Your task to perform on an android device: Open Google Chrome and open the bookmarks view Image 0: 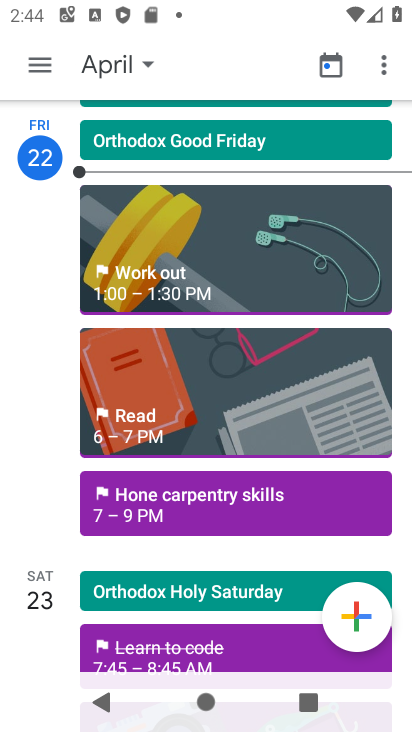
Step 0: press home button
Your task to perform on an android device: Open Google Chrome and open the bookmarks view Image 1: 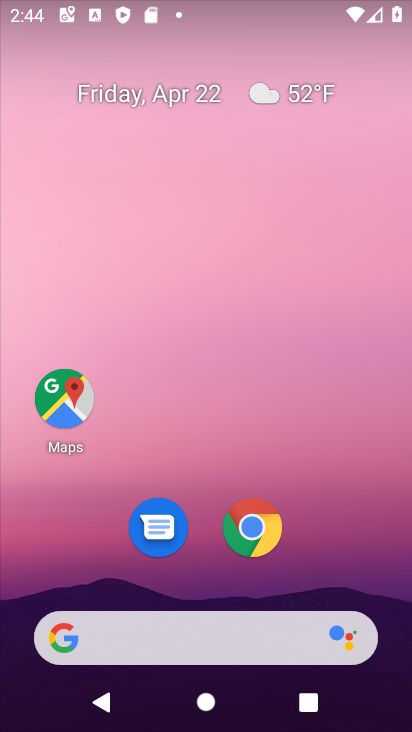
Step 1: drag from (350, 528) to (252, 116)
Your task to perform on an android device: Open Google Chrome and open the bookmarks view Image 2: 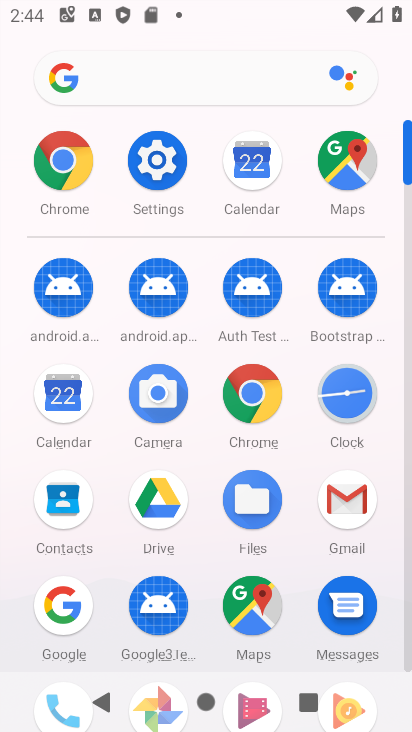
Step 2: click (73, 185)
Your task to perform on an android device: Open Google Chrome and open the bookmarks view Image 3: 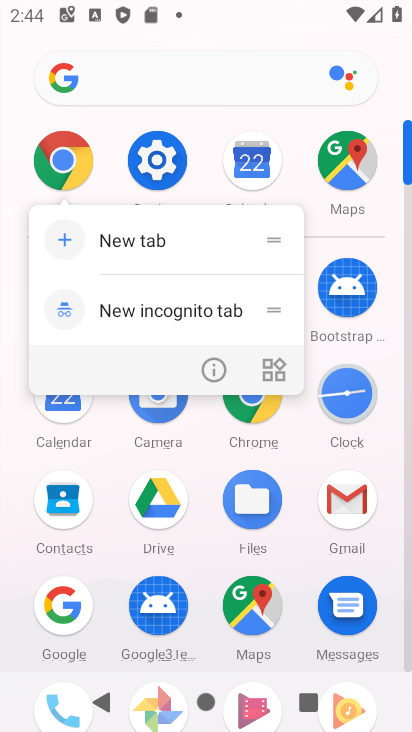
Step 3: click (73, 183)
Your task to perform on an android device: Open Google Chrome and open the bookmarks view Image 4: 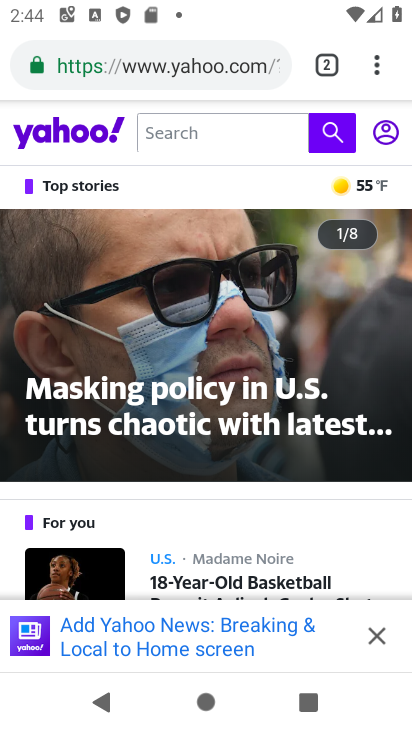
Step 4: task complete